Your task to perform on an android device: Open the calendar app, open the side menu, and click the "Day" option Image 0: 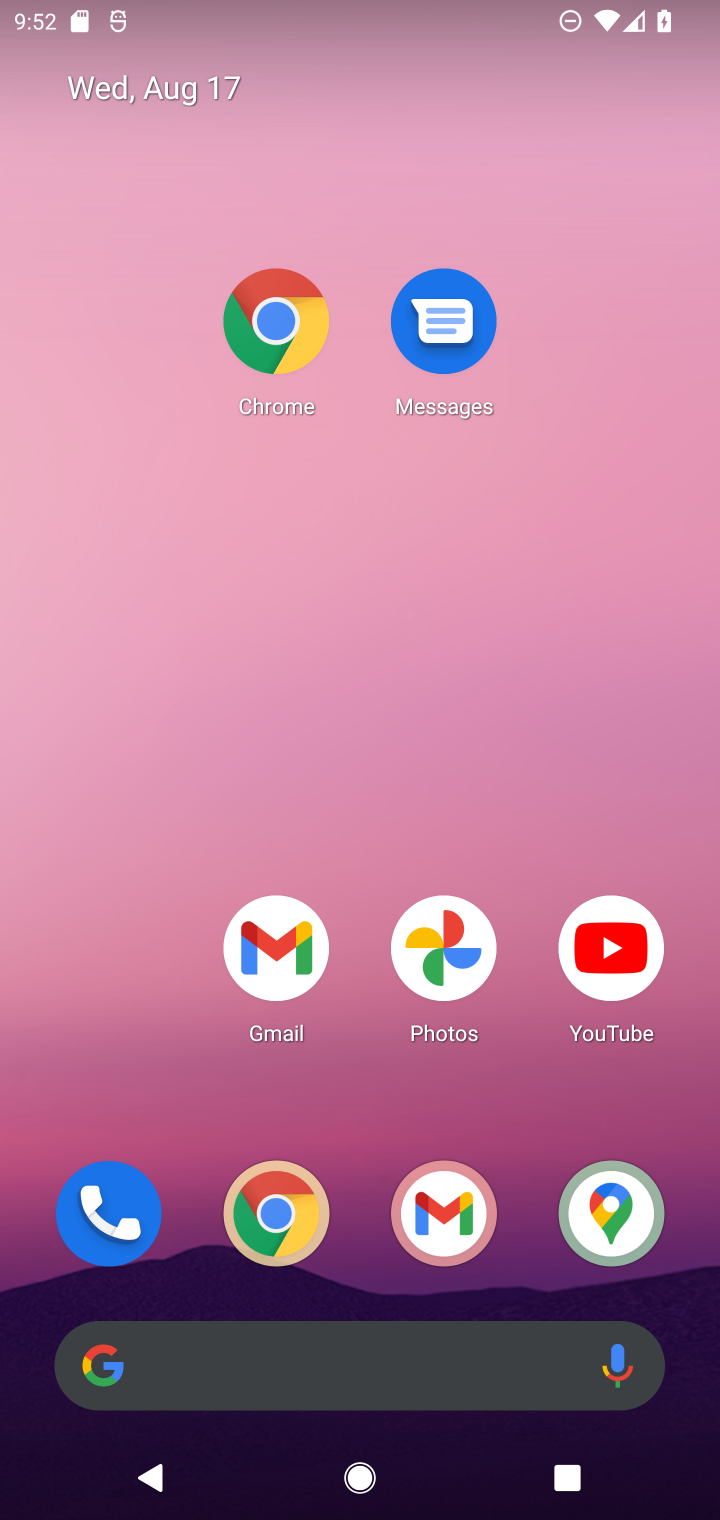
Step 0: drag from (365, 1256) to (412, 244)
Your task to perform on an android device: Open the calendar app, open the side menu, and click the "Day" option Image 1: 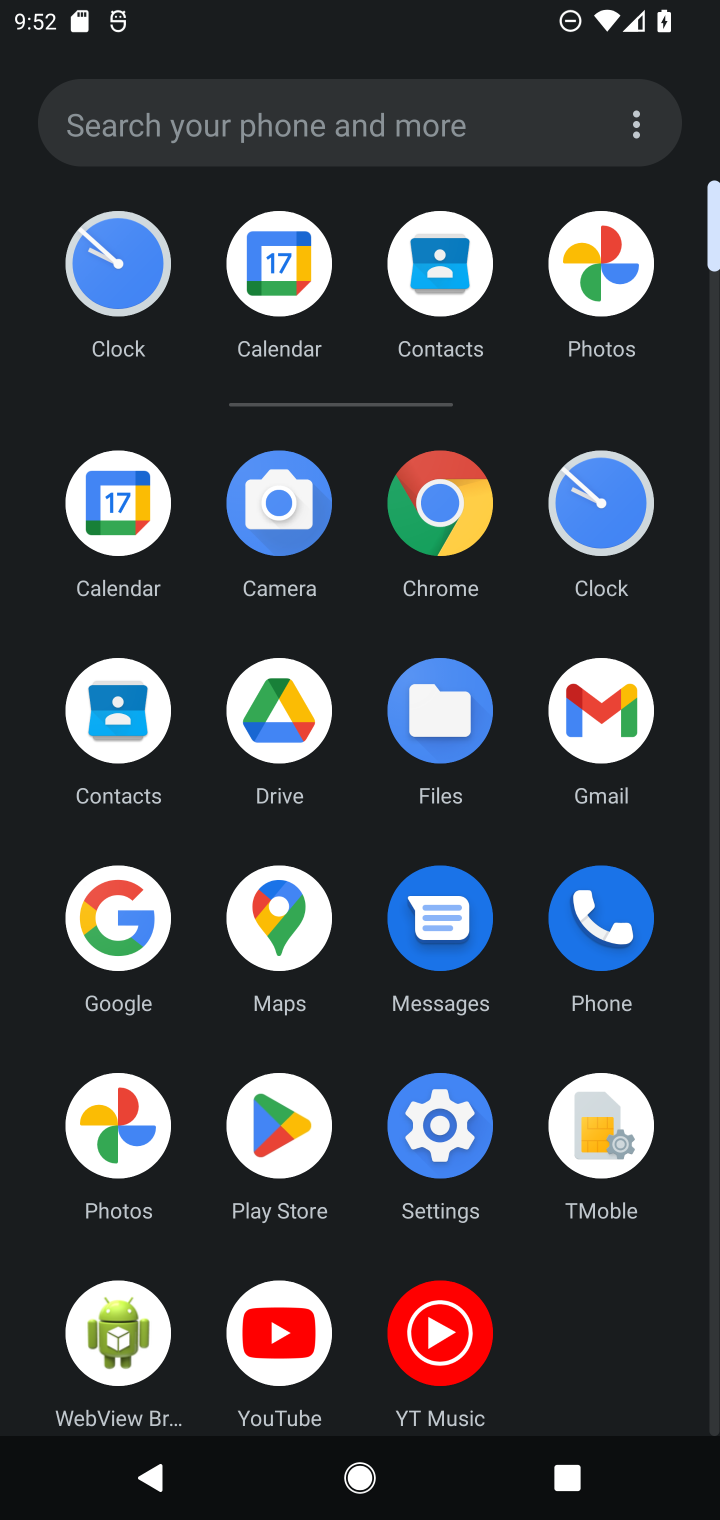
Step 1: click (242, 284)
Your task to perform on an android device: Open the calendar app, open the side menu, and click the "Day" option Image 2: 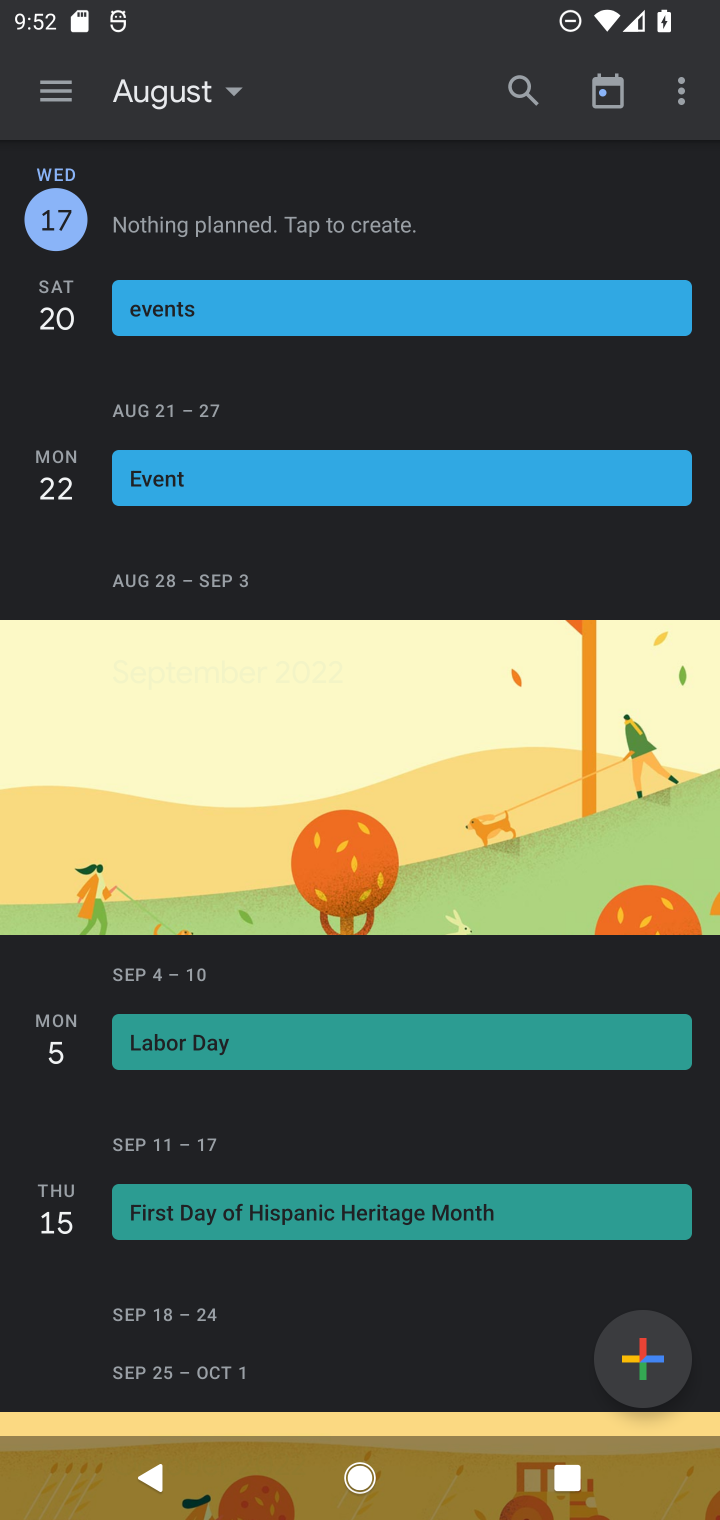
Step 2: click (55, 95)
Your task to perform on an android device: Open the calendar app, open the side menu, and click the "Day" option Image 3: 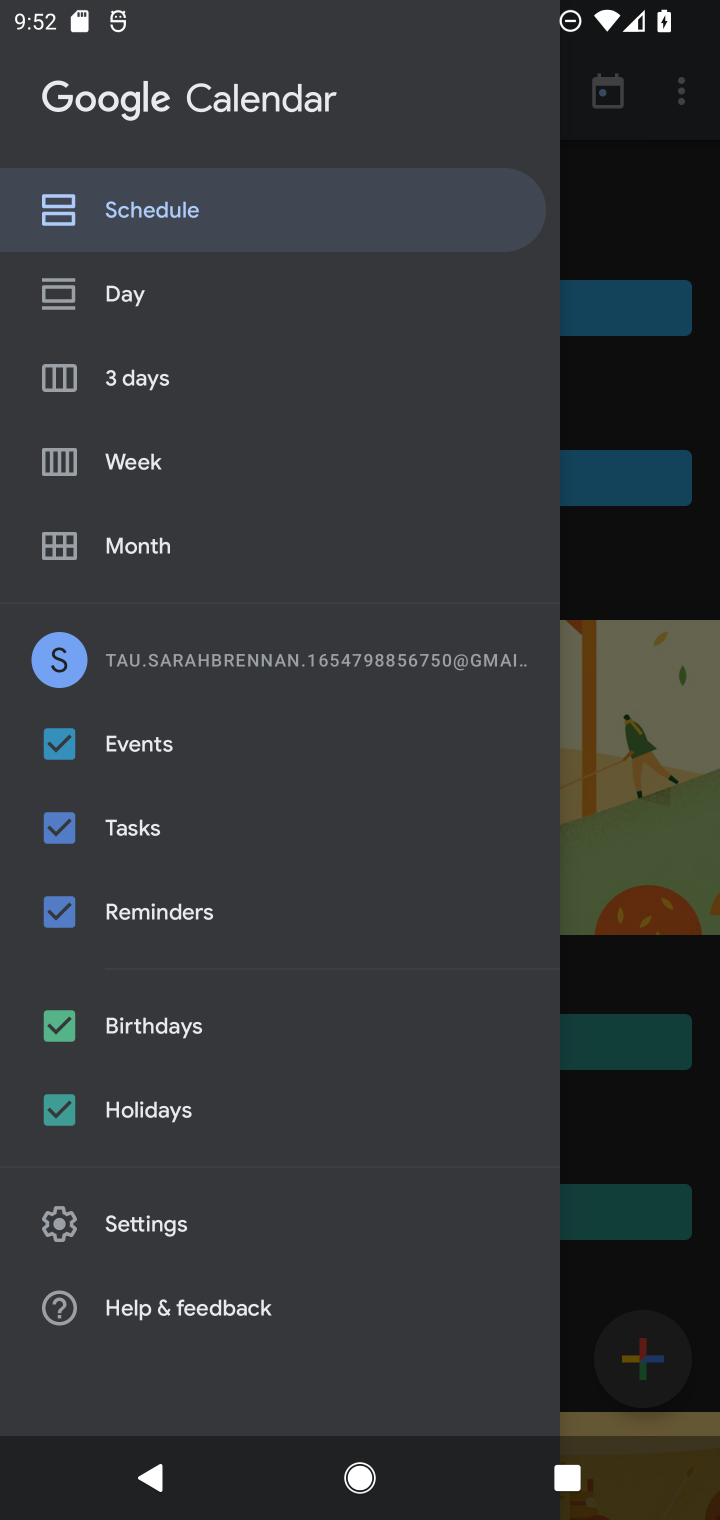
Step 3: click (78, 280)
Your task to perform on an android device: Open the calendar app, open the side menu, and click the "Day" option Image 4: 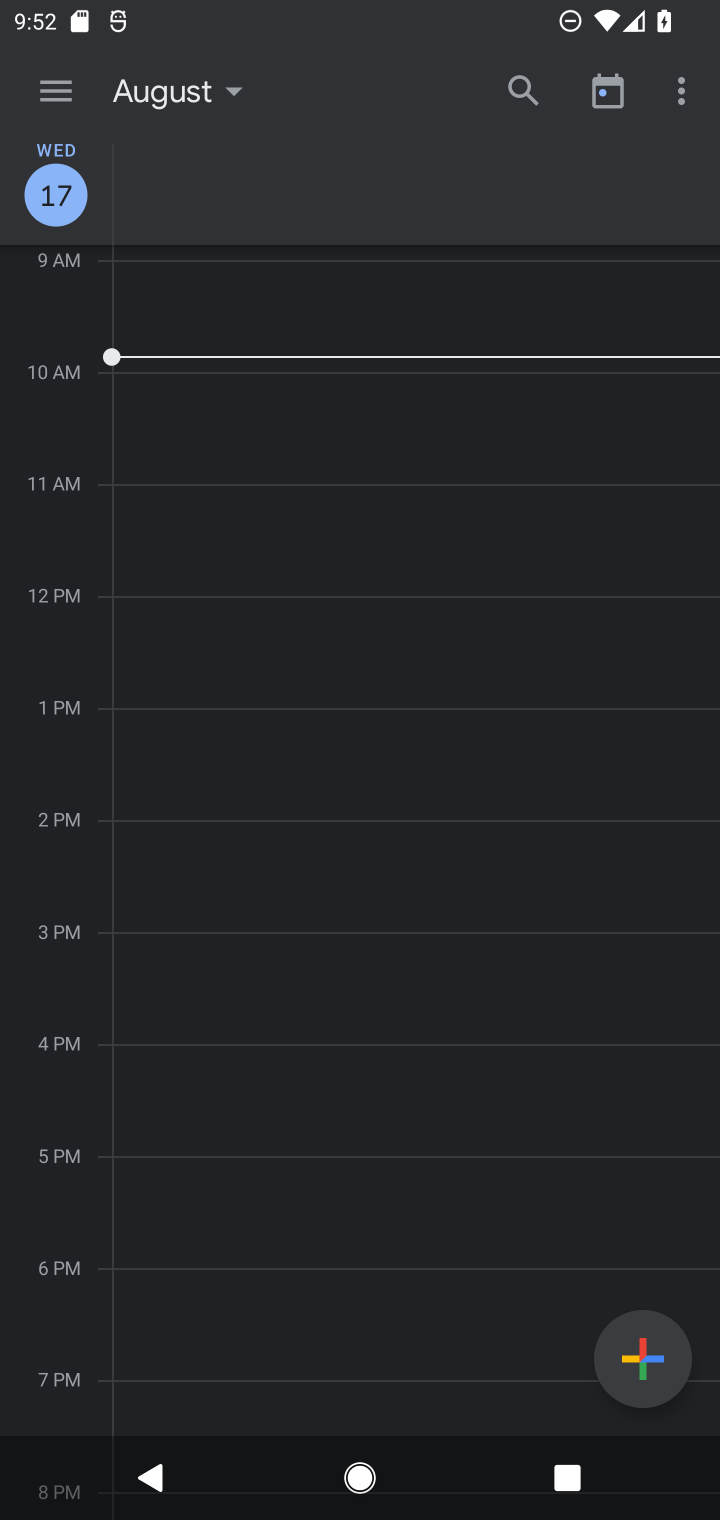
Step 4: task complete